Your task to perform on an android device: Open the web browser Image 0: 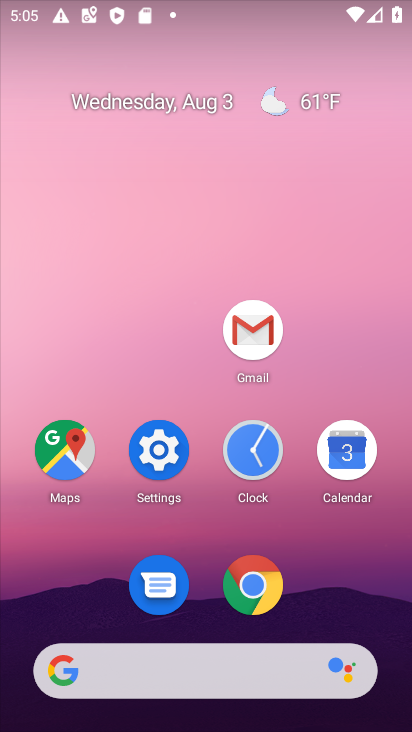
Step 0: click (244, 587)
Your task to perform on an android device: Open the web browser Image 1: 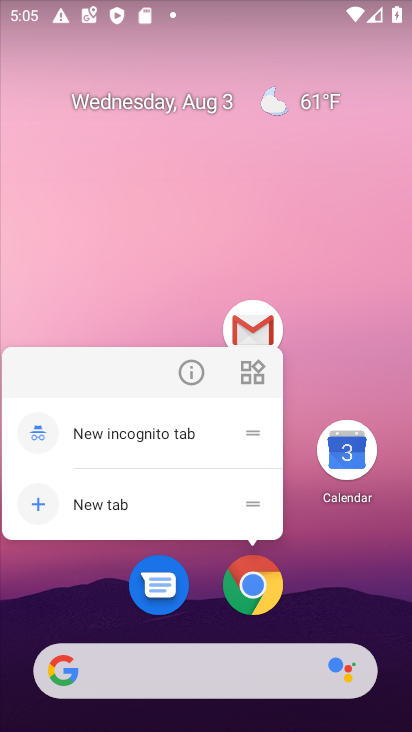
Step 1: click (257, 571)
Your task to perform on an android device: Open the web browser Image 2: 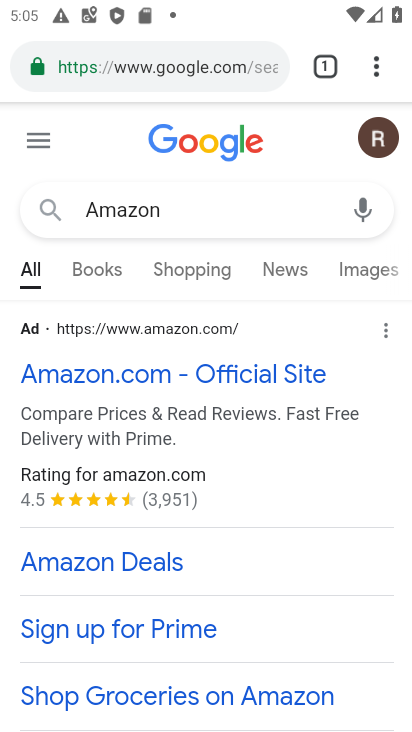
Step 2: task complete